Your task to perform on an android device: toggle priority inbox in the gmail app Image 0: 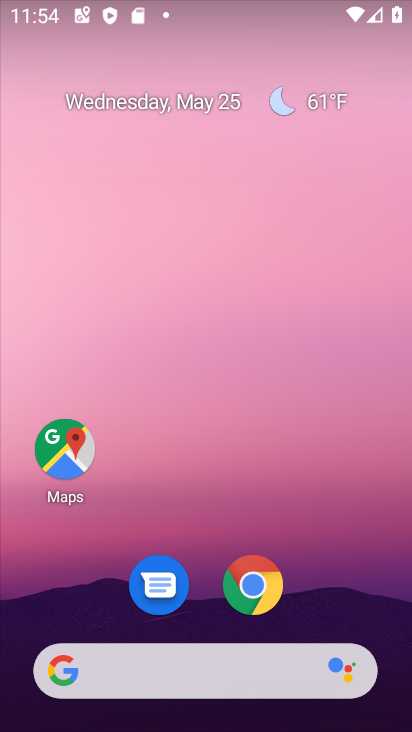
Step 0: drag from (209, 488) to (241, 64)
Your task to perform on an android device: toggle priority inbox in the gmail app Image 1: 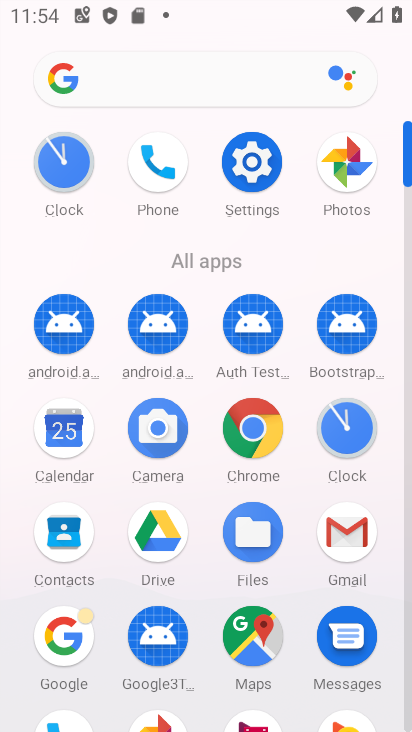
Step 1: click (339, 535)
Your task to perform on an android device: toggle priority inbox in the gmail app Image 2: 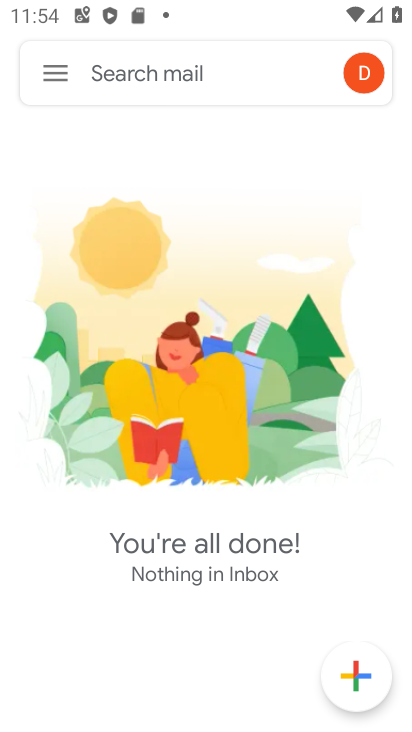
Step 2: click (55, 75)
Your task to perform on an android device: toggle priority inbox in the gmail app Image 3: 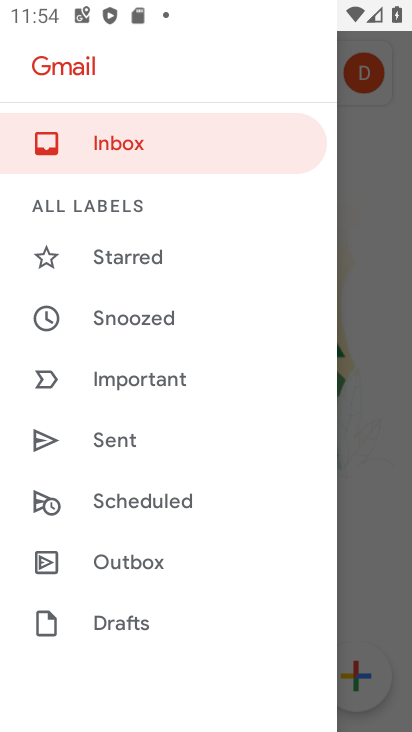
Step 3: drag from (173, 543) to (212, 145)
Your task to perform on an android device: toggle priority inbox in the gmail app Image 4: 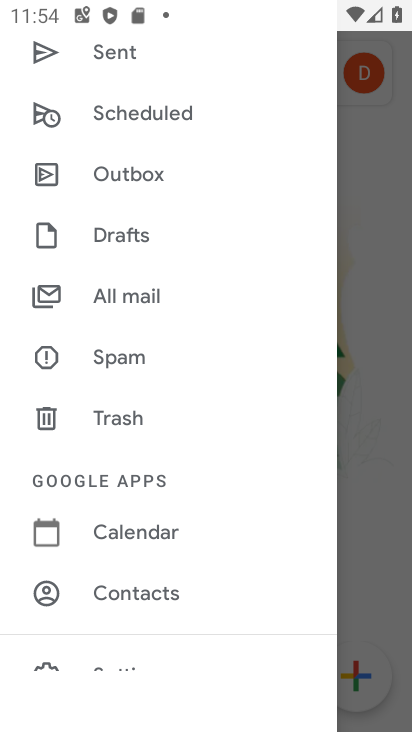
Step 4: drag from (191, 371) to (217, 144)
Your task to perform on an android device: toggle priority inbox in the gmail app Image 5: 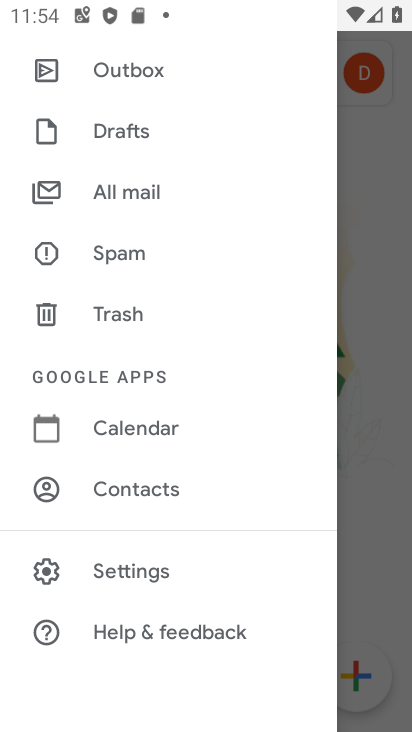
Step 5: click (150, 560)
Your task to perform on an android device: toggle priority inbox in the gmail app Image 6: 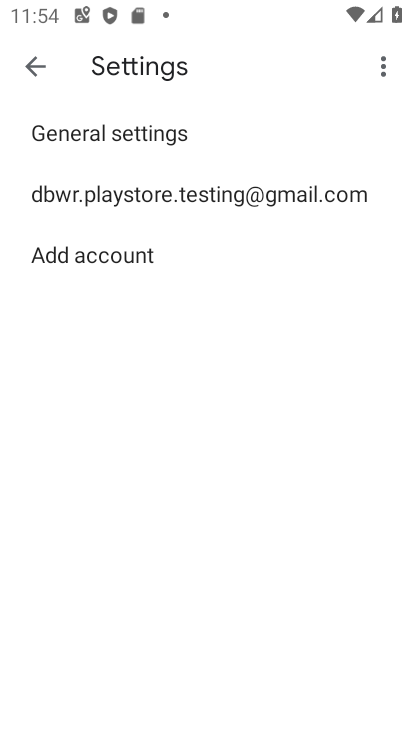
Step 6: click (294, 186)
Your task to perform on an android device: toggle priority inbox in the gmail app Image 7: 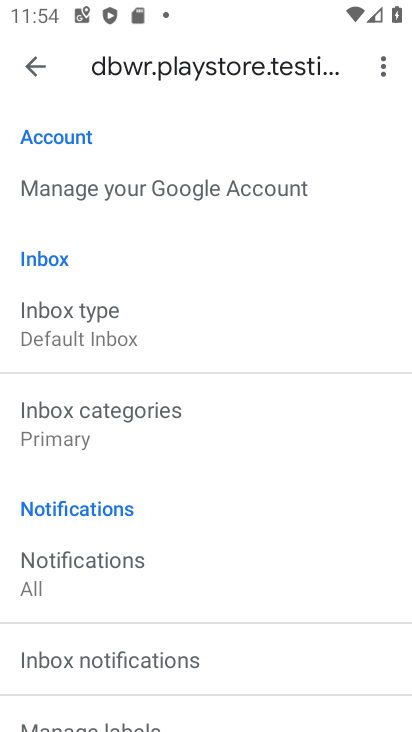
Step 7: click (91, 344)
Your task to perform on an android device: toggle priority inbox in the gmail app Image 8: 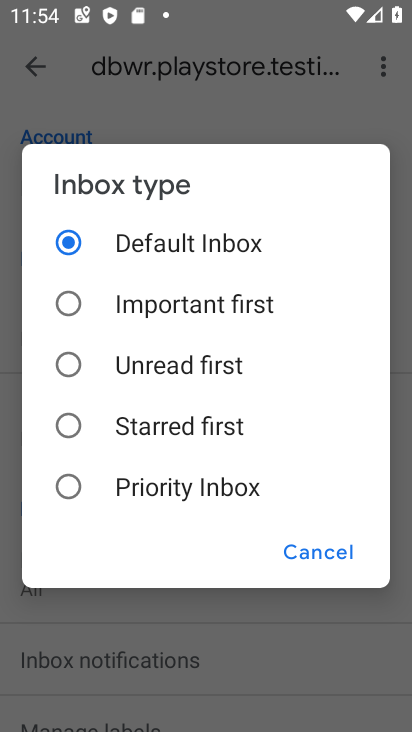
Step 8: click (68, 476)
Your task to perform on an android device: toggle priority inbox in the gmail app Image 9: 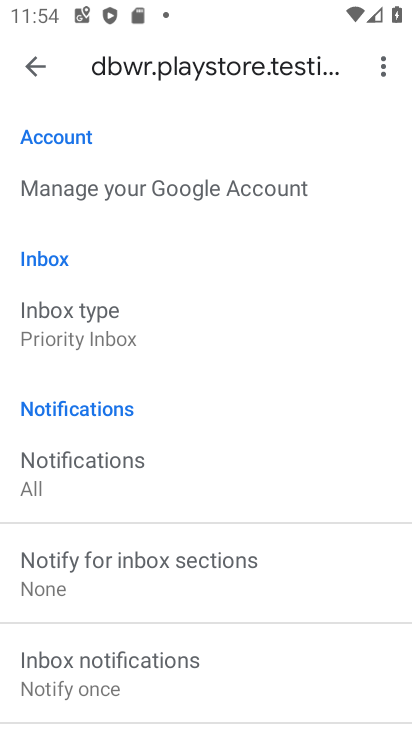
Step 9: task complete